Your task to perform on an android device: Open Maps and search for coffee Image 0: 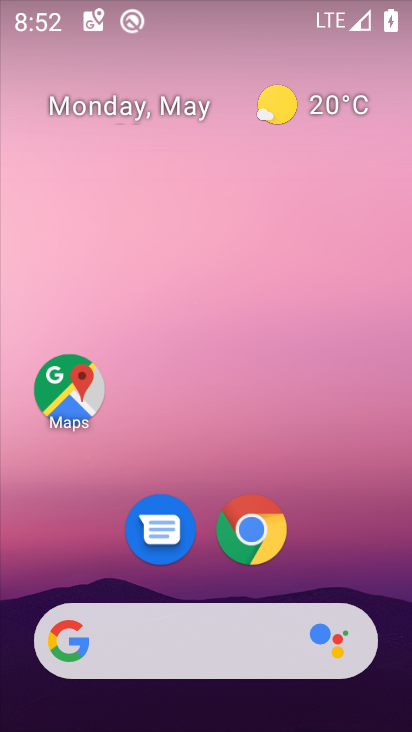
Step 0: click (44, 390)
Your task to perform on an android device: Open Maps and search for coffee Image 1: 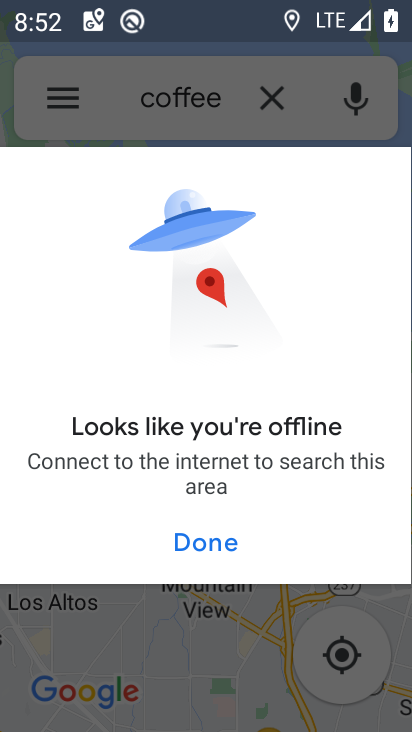
Step 1: click (282, 118)
Your task to perform on an android device: Open Maps and search for coffee Image 2: 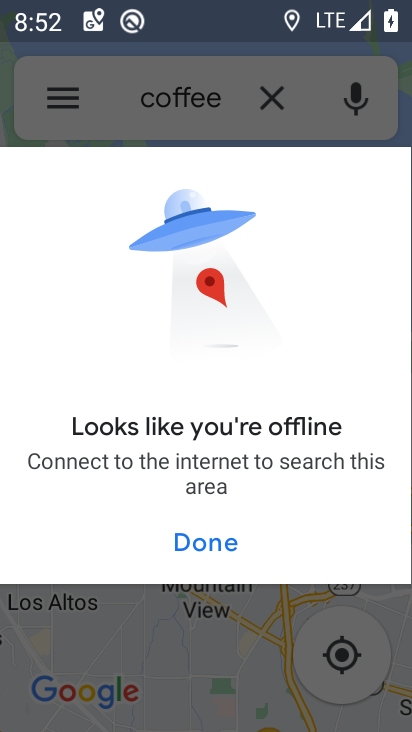
Step 2: press back button
Your task to perform on an android device: Open Maps and search for coffee Image 3: 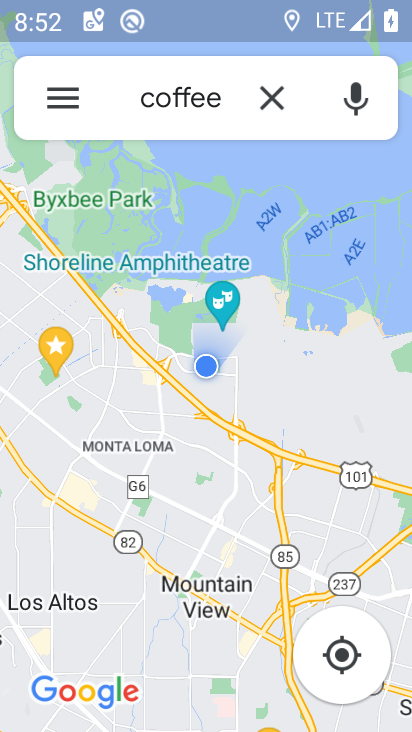
Step 3: click (246, 74)
Your task to perform on an android device: Open Maps and search for coffee Image 4: 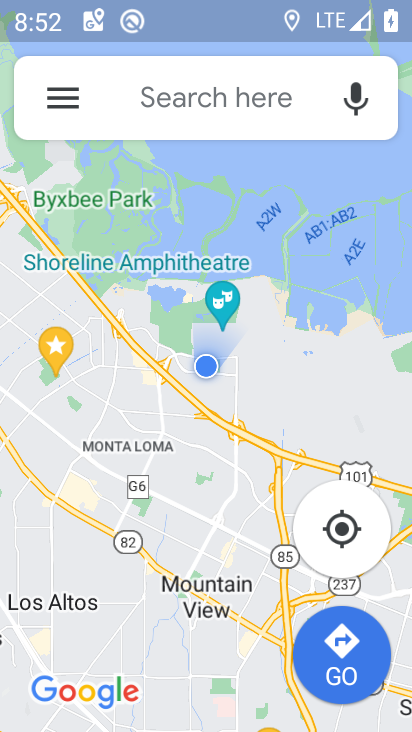
Step 4: click (174, 101)
Your task to perform on an android device: Open Maps and search for coffee Image 5: 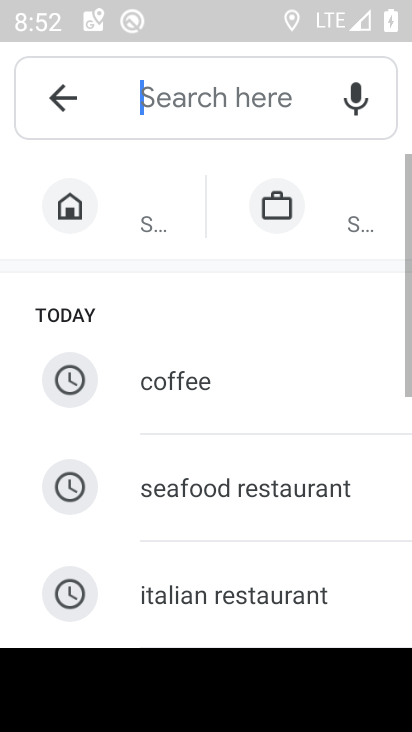
Step 5: click (153, 364)
Your task to perform on an android device: Open Maps and search for coffee Image 6: 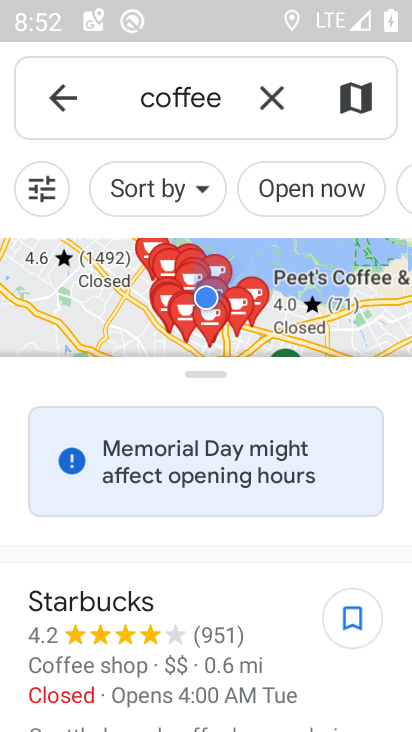
Step 6: task complete